Your task to perform on an android device: Open calendar and show me the first week of next month Image 0: 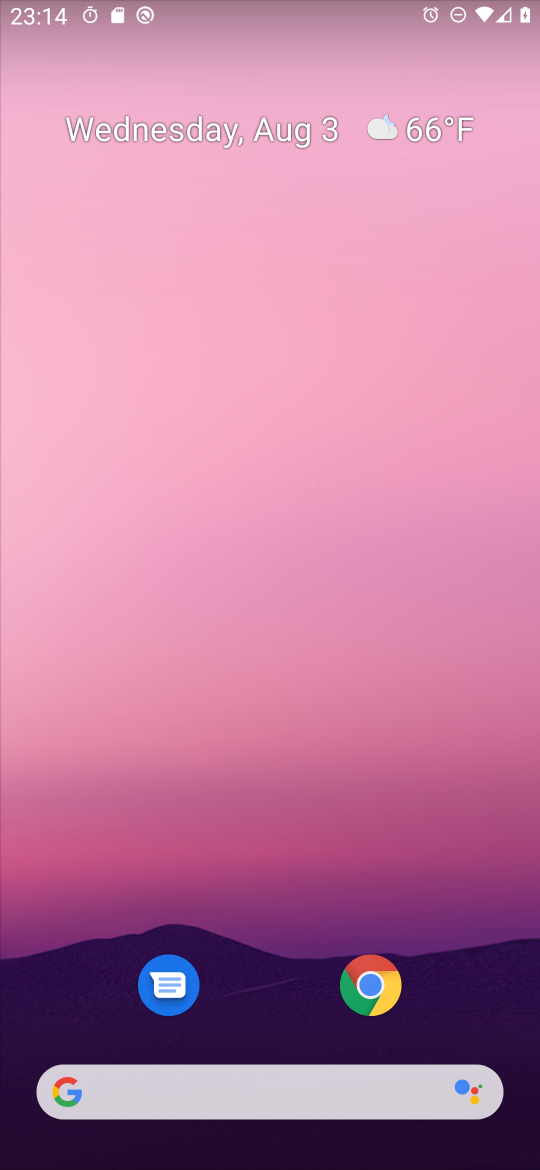
Step 0: drag from (271, 974) to (313, 354)
Your task to perform on an android device: Open calendar and show me the first week of next month Image 1: 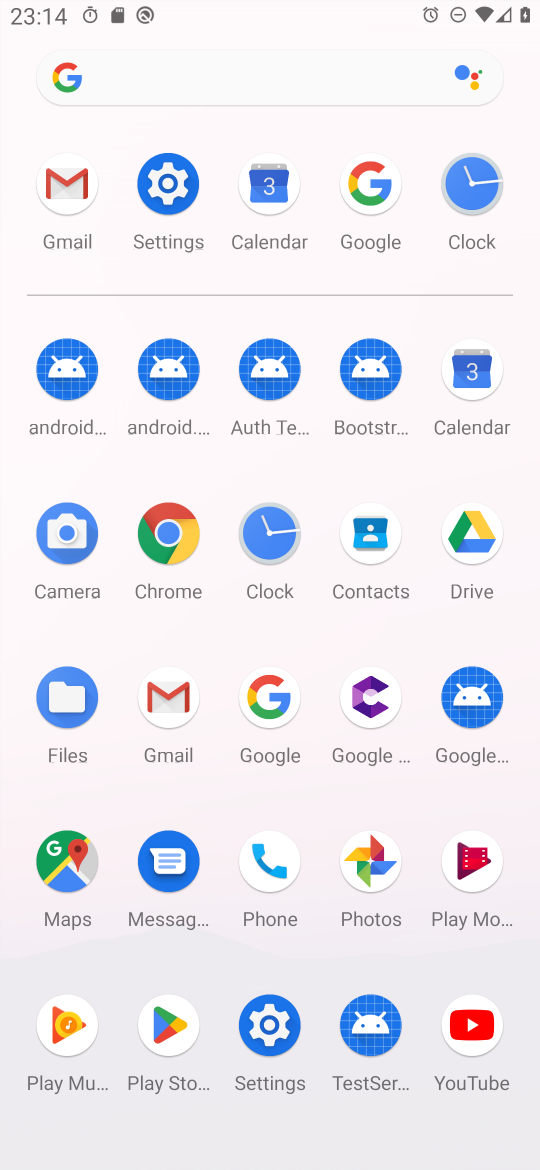
Step 1: click (280, 202)
Your task to perform on an android device: Open calendar and show me the first week of next month Image 2: 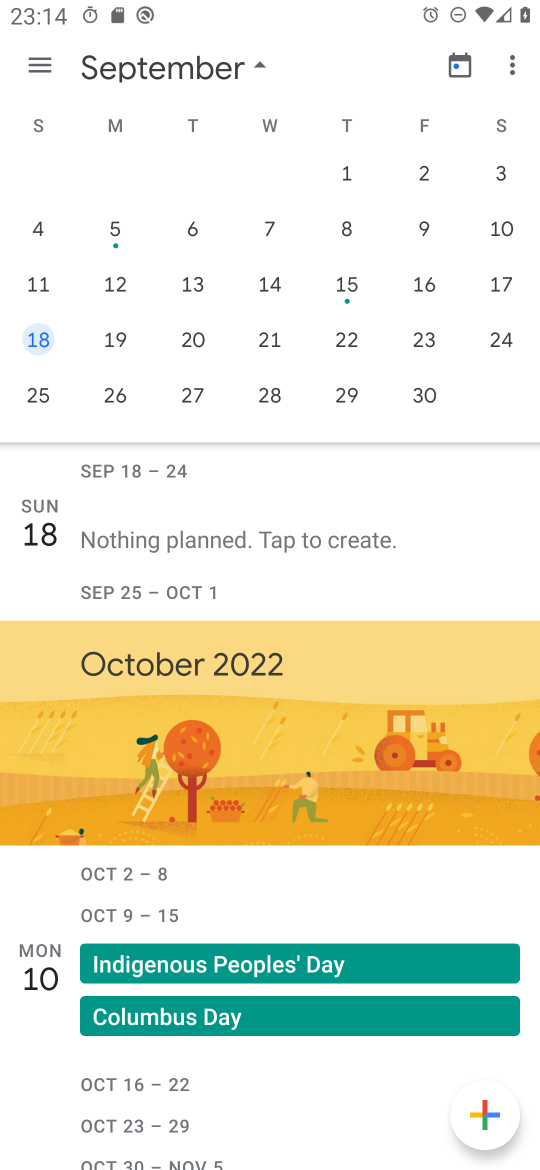
Step 2: click (46, 341)
Your task to perform on an android device: Open calendar and show me the first week of next month Image 3: 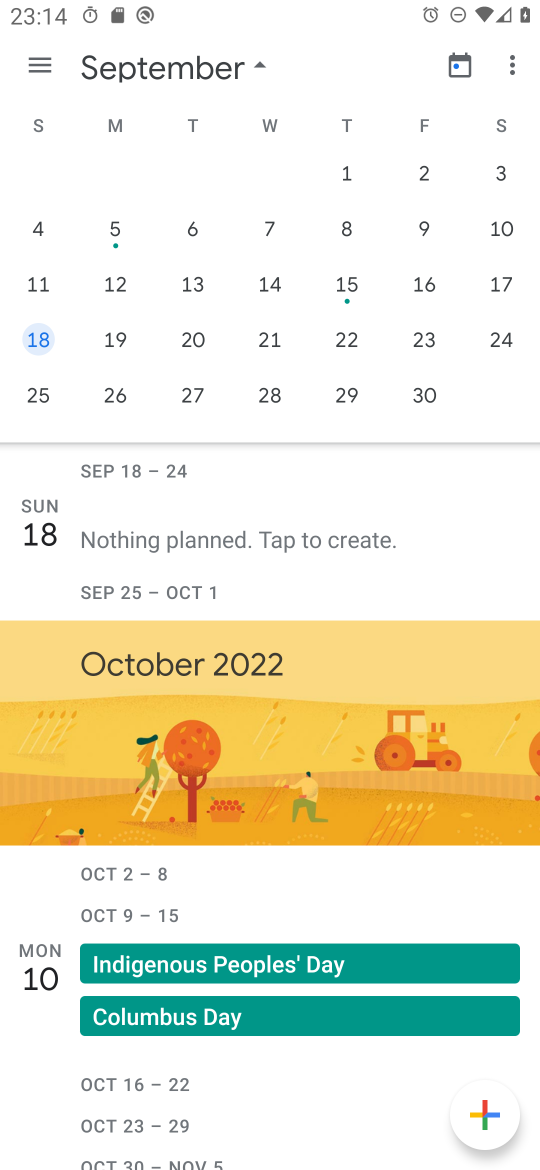
Step 3: task complete